Your task to perform on an android device: Set the phone to "Do not disturb". Image 0: 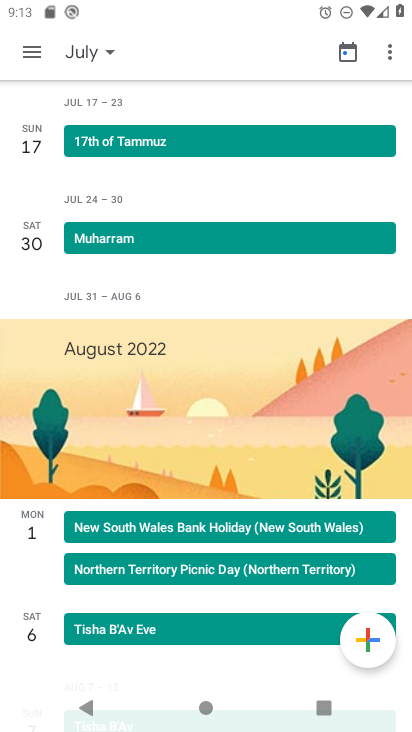
Step 0: press home button
Your task to perform on an android device: Set the phone to "Do not disturb". Image 1: 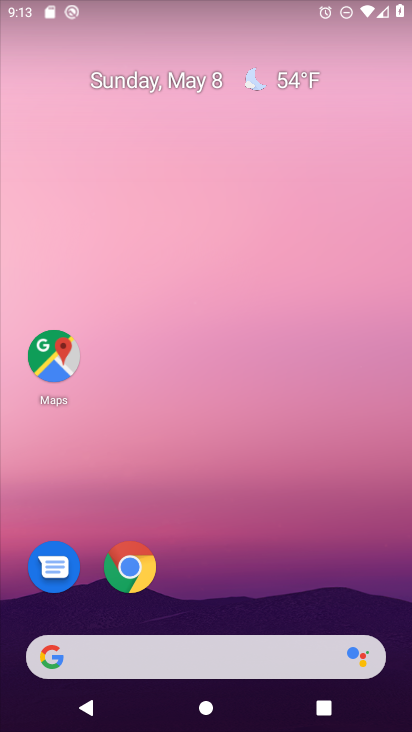
Step 1: drag from (358, 556) to (318, 127)
Your task to perform on an android device: Set the phone to "Do not disturb". Image 2: 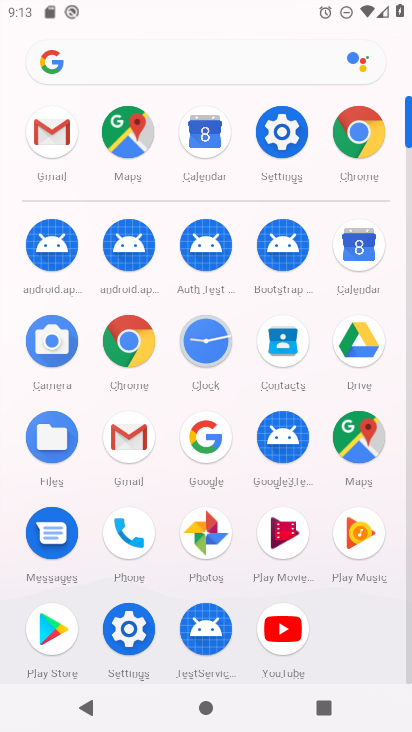
Step 2: click (271, 144)
Your task to perform on an android device: Set the phone to "Do not disturb". Image 3: 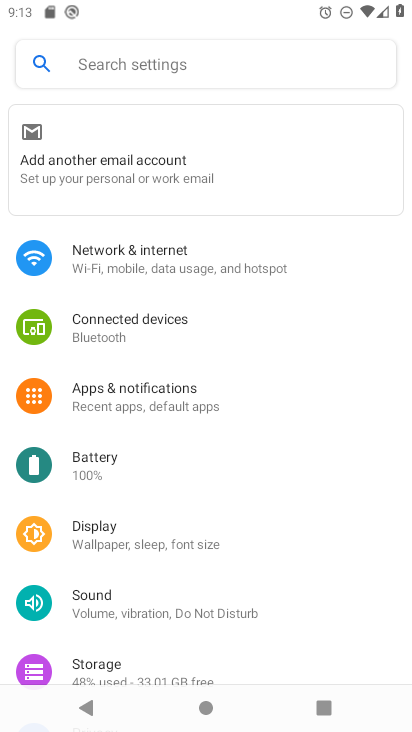
Step 3: click (166, 607)
Your task to perform on an android device: Set the phone to "Do not disturb". Image 4: 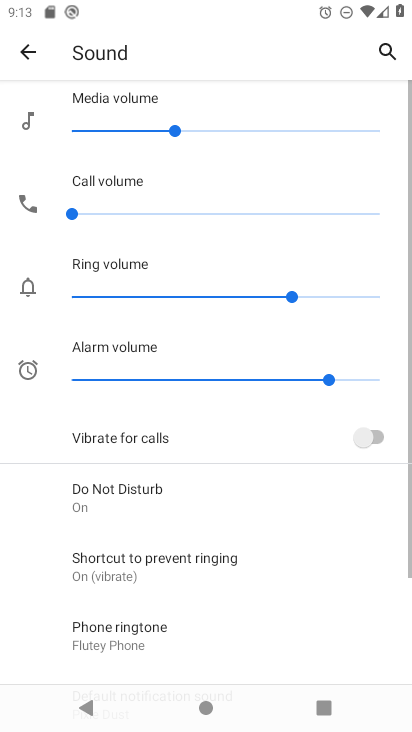
Step 4: drag from (166, 607) to (180, 326)
Your task to perform on an android device: Set the phone to "Do not disturb". Image 5: 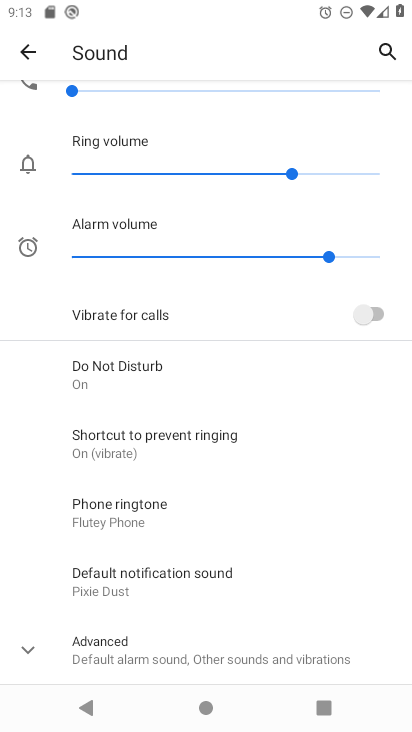
Step 5: click (144, 368)
Your task to perform on an android device: Set the phone to "Do not disturb". Image 6: 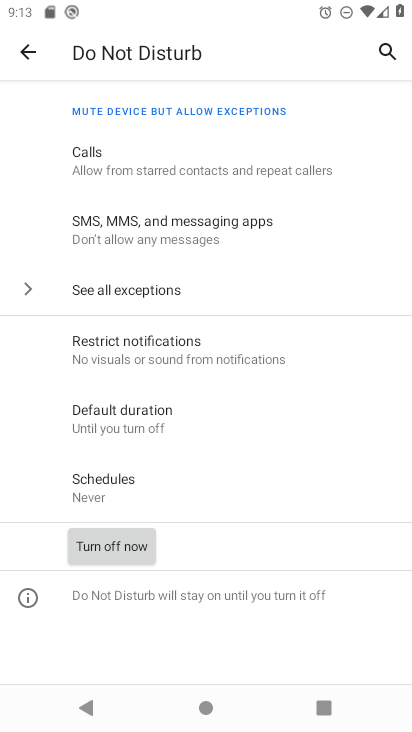
Step 6: task complete